Your task to perform on an android device: check data usage Image 0: 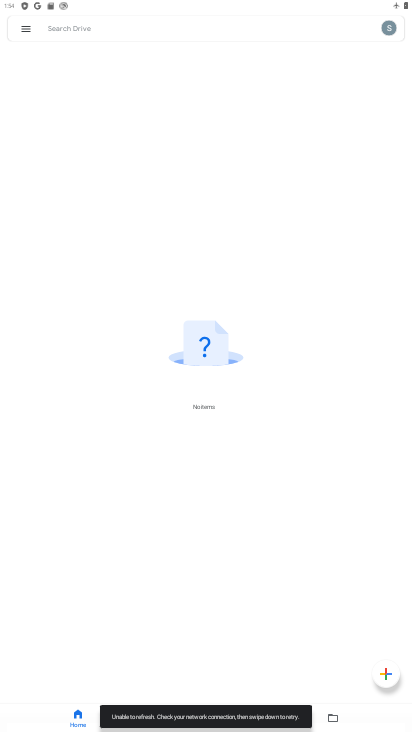
Step 0: press home button
Your task to perform on an android device: check data usage Image 1: 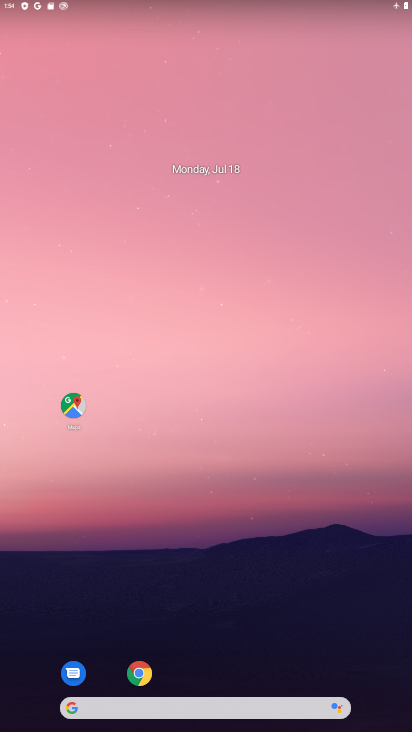
Step 1: drag from (193, 707) to (248, 7)
Your task to perform on an android device: check data usage Image 2: 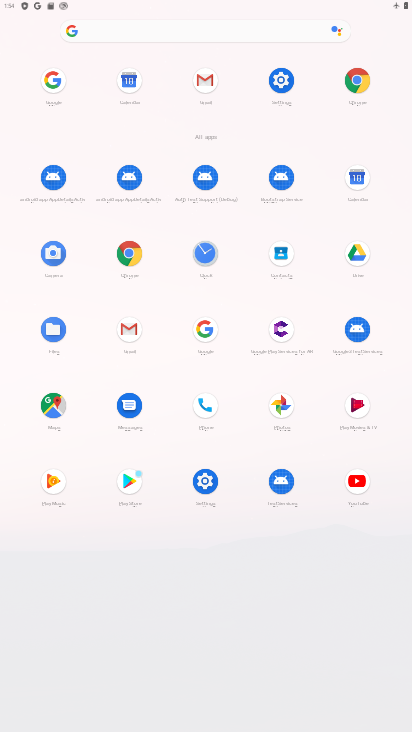
Step 2: click (282, 80)
Your task to perform on an android device: check data usage Image 3: 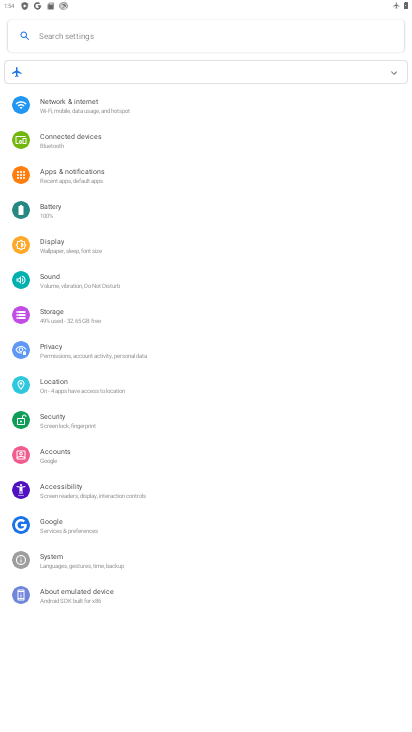
Step 3: click (95, 111)
Your task to perform on an android device: check data usage Image 4: 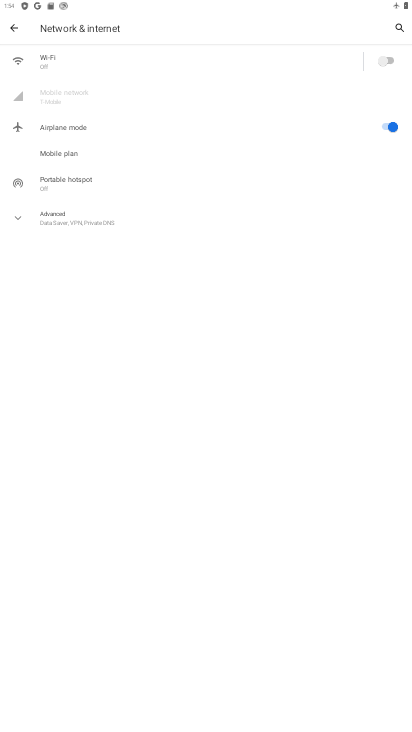
Step 4: task complete